Your task to perform on an android device: snooze an email in the gmail app Image 0: 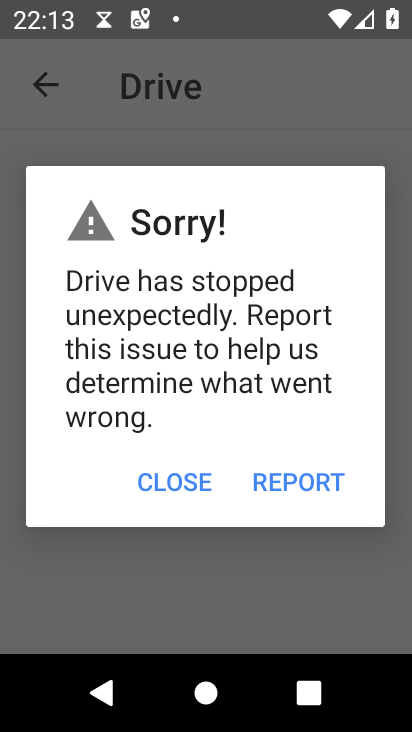
Step 0: click (354, 598)
Your task to perform on an android device: snooze an email in the gmail app Image 1: 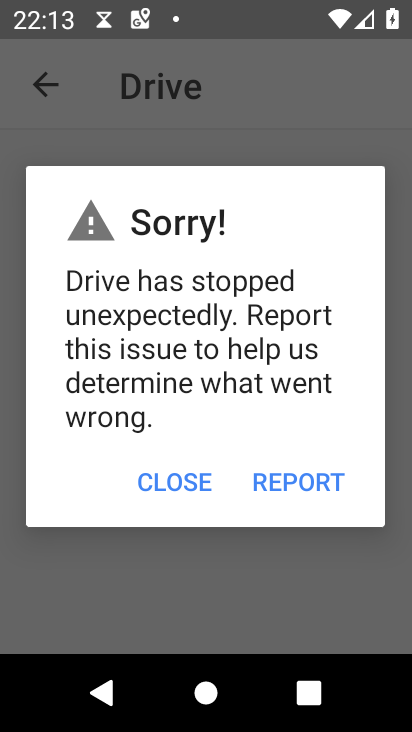
Step 1: press home button
Your task to perform on an android device: snooze an email in the gmail app Image 2: 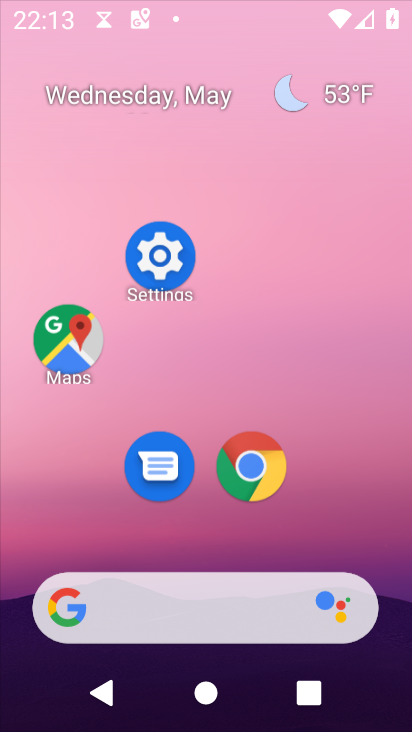
Step 2: drag from (240, 597) to (291, 470)
Your task to perform on an android device: snooze an email in the gmail app Image 3: 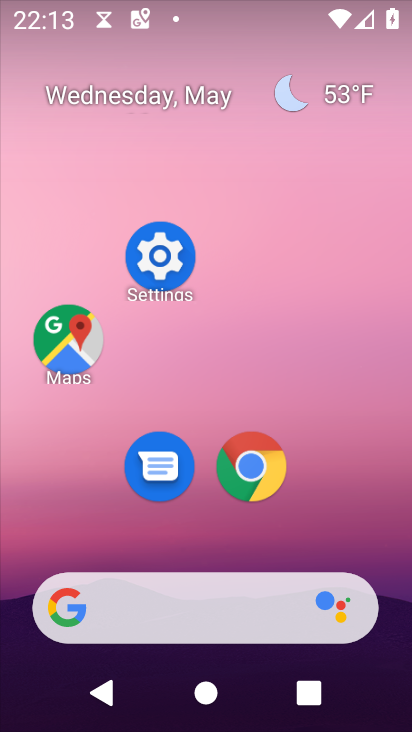
Step 3: drag from (195, 552) to (258, 101)
Your task to perform on an android device: snooze an email in the gmail app Image 4: 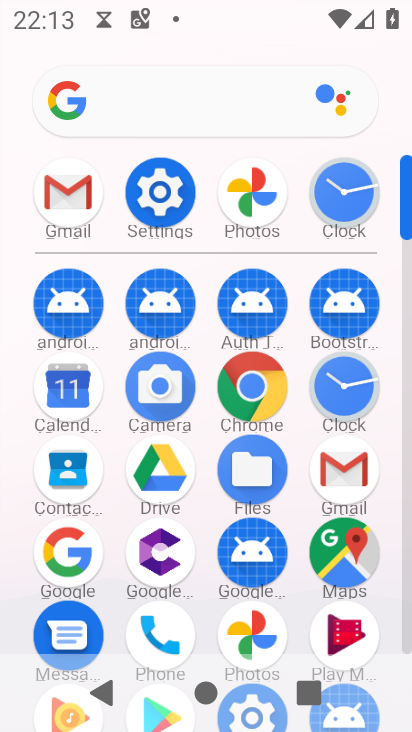
Step 4: click (336, 489)
Your task to perform on an android device: snooze an email in the gmail app Image 5: 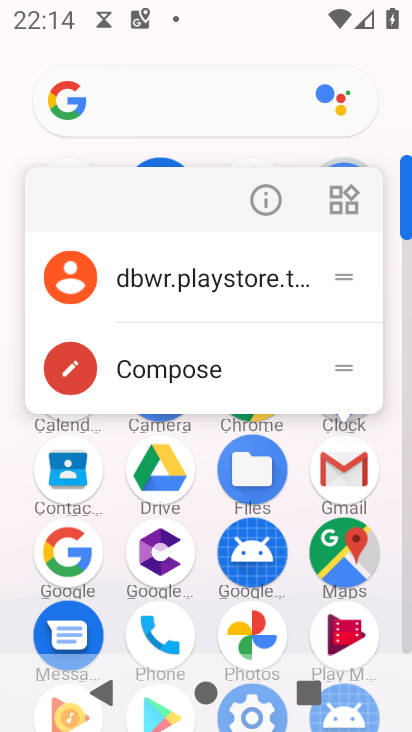
Step 5: click (263, 202)
Your task to perform on an android device: snooze an email in the gmail app Image 6: 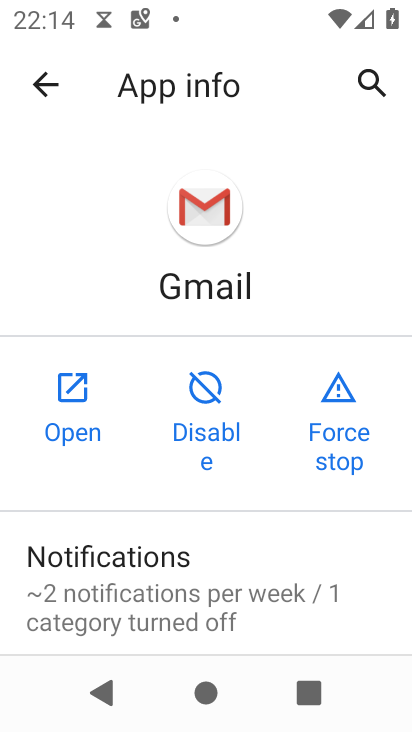
Step 6: click (81, 404)
Your task to perform on an android device: snooze an email in the gmail app Image 7: 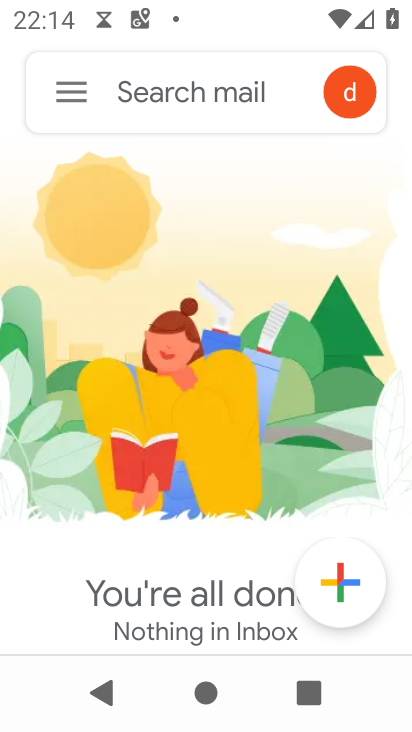
Step 7: click (71, 97)
Your task to perform on an android device: snooze an email in the gmail app Image 8: 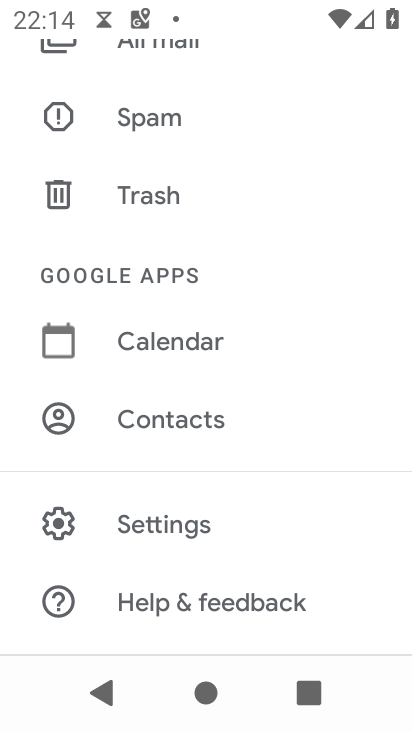
Step 8: task complete